Your task to perform on an android device: see creations saved in the google photos Image 0: 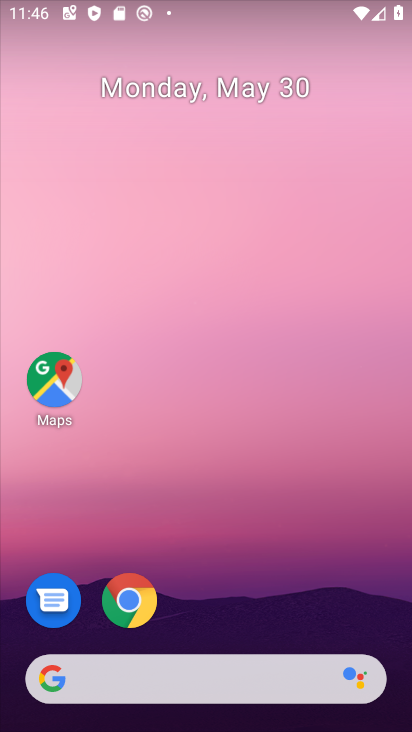
Step 0: drag from (196, 726) to (193, 117)
Your task to perform on an android device: see creations saved in the google photos Image 1: 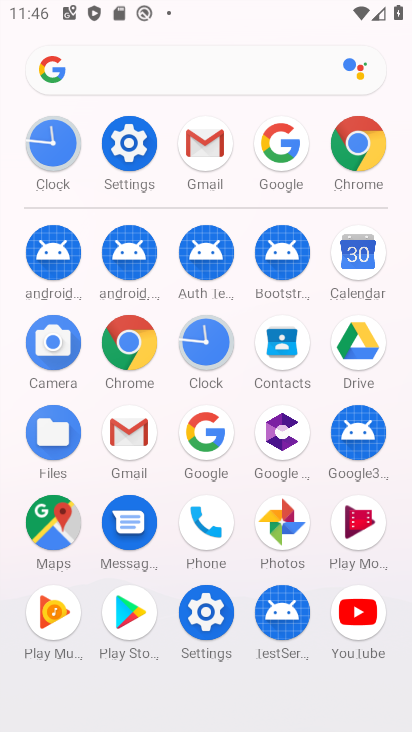
Step 1: click (290, 511)
Your task to perform on an android device: see creations saved in the google photos Image 2: 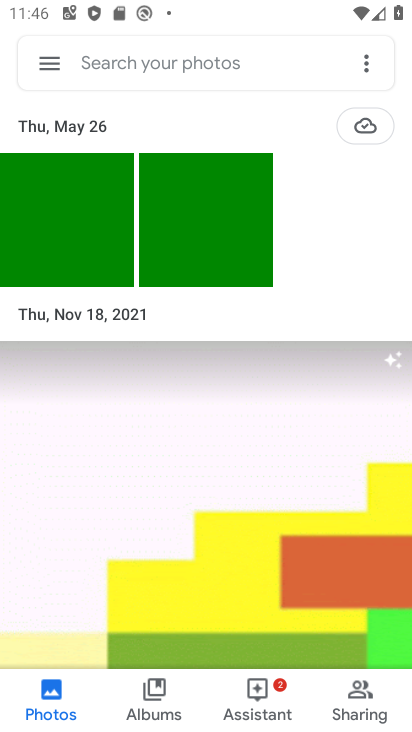
Step 2: click (182, 65)
Your task to perform on an android device: see creations saved in the google photos Image 3: 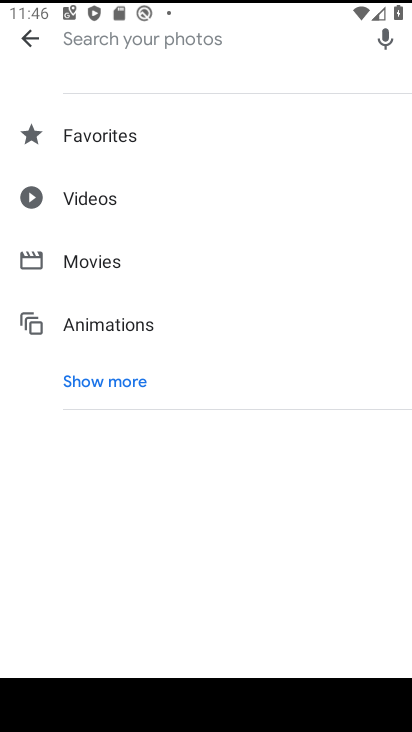
Step 3: click (91, 373)
Your task to perform on an android device: see creations saved in the google photos Image 4: 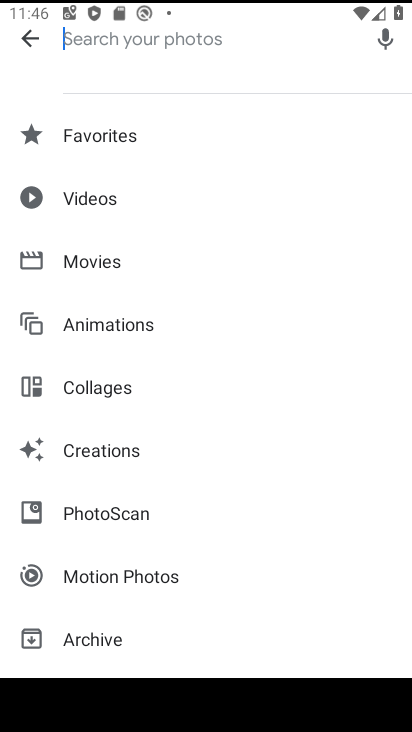
Step 4: click (97, 448)
Your task to perform on an android device: see creations saved in the google photos Image 5: 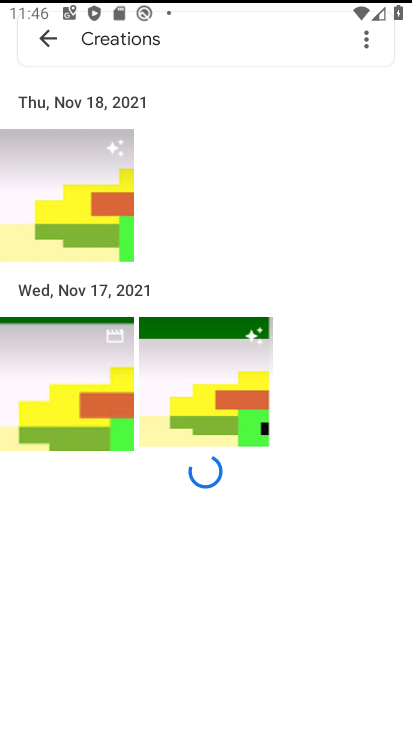
Step 5: task complete